Your task to perform on an android device: Open Google Image 0: 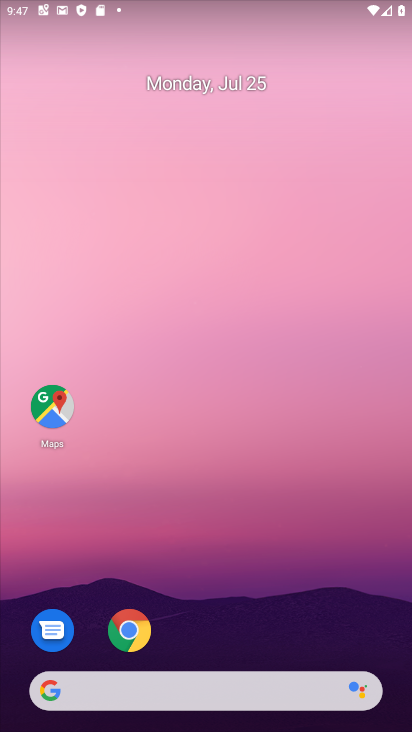
Step 0: press home button
Your task to perform on an android device: Open Google Image 1: 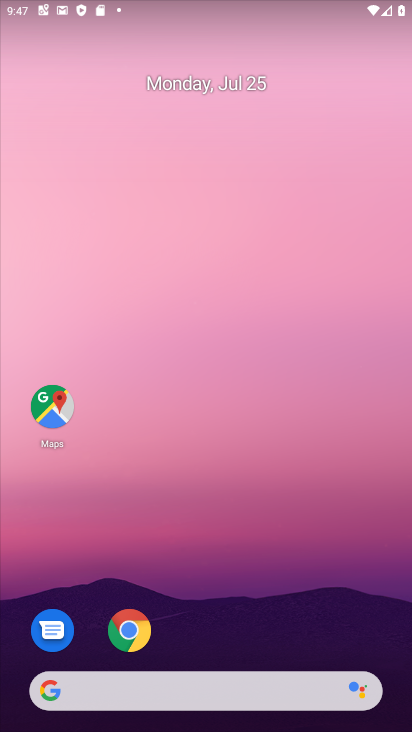
Step 1: click (53, 693)
Your task to perform on an android device: Open Google Image 2: 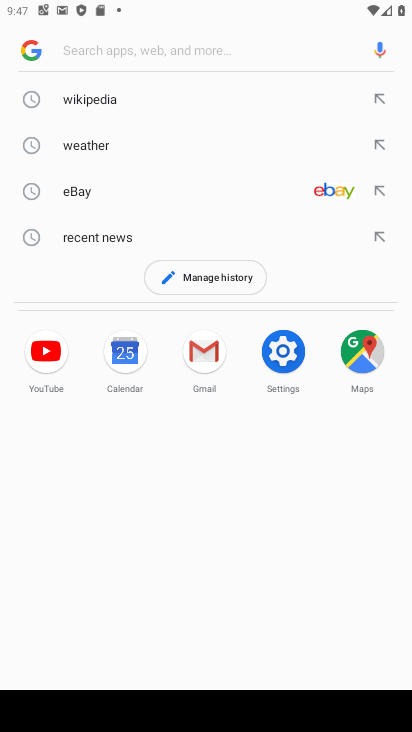
Step 2: task complete